Your task to perform on an android device: find snoozed emails in the gmail app Image 0: 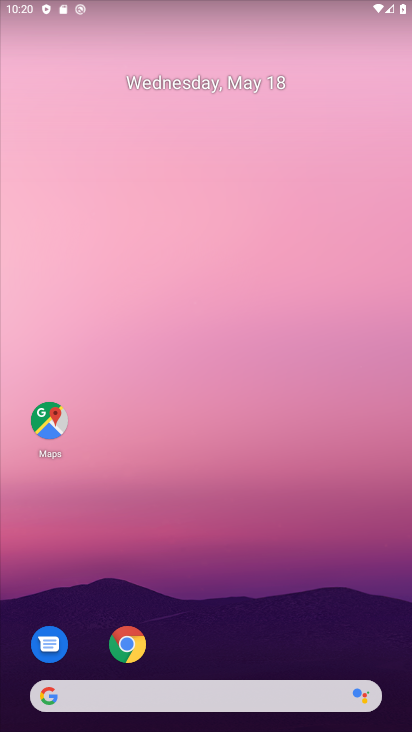
Step 0: drag from (390, 620) to (197, 36)
Your task to perform on an android device: find snoozed emails in the gmail app Image 1: 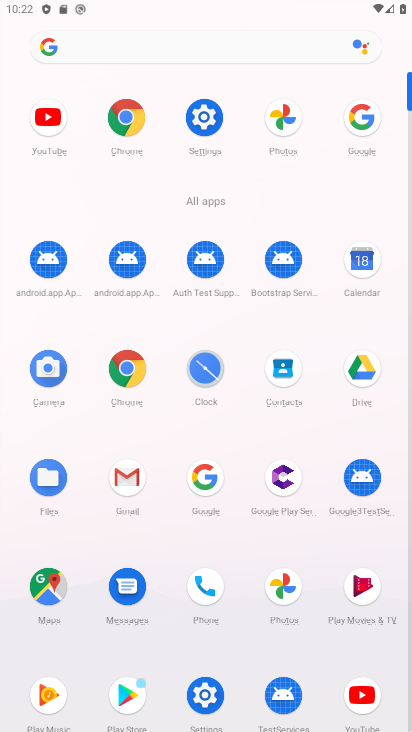
Step 1: click (113, 484)
Your task to perform on an android device: find snoozed emails in the gmail app Image 2: 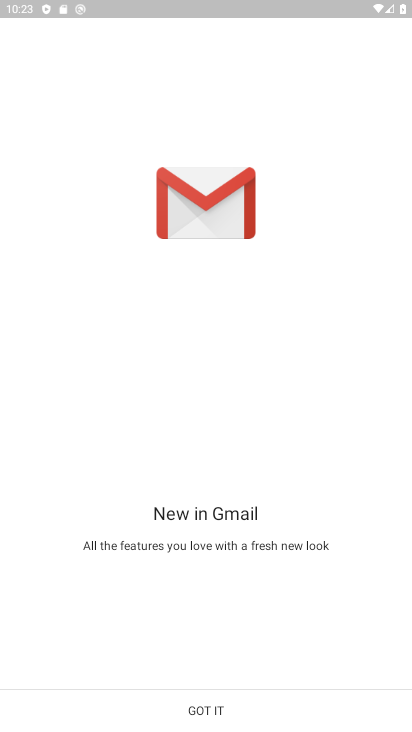
Step 2: click (224, 707)
Your task to perform on an android device: find snoozed emails in the gmail app Image 3: 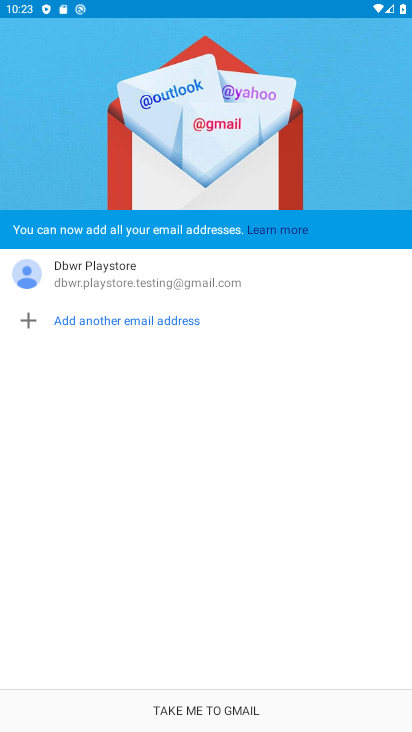
Step 3: click (194, 700)
Your task to perform on an android device: find snoozed emails in the gmail app Image 4: 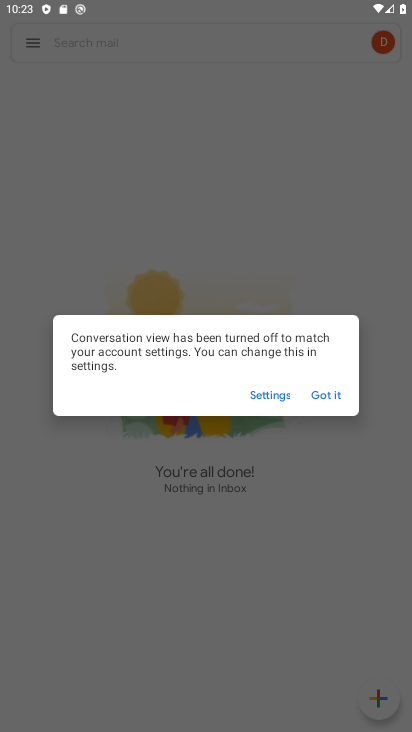
Step 4: click (349, 396)
Your task to perform on an android device: find snoozed emails in the gmail app Image 5: 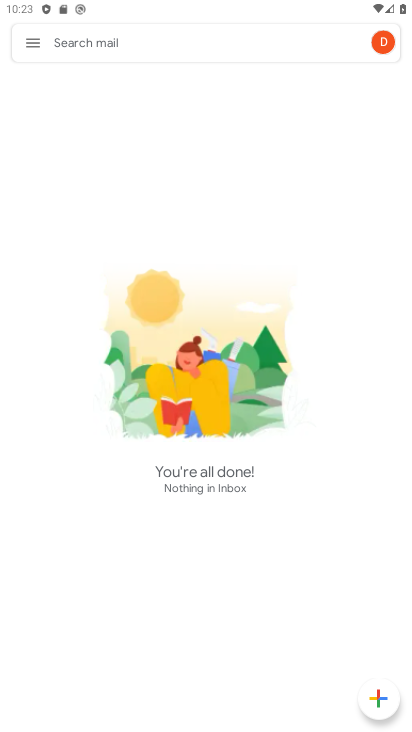
Step 5: click (44, 39)
Your task to perform on an android device: find snoozed emails in the gmail app Image 6: 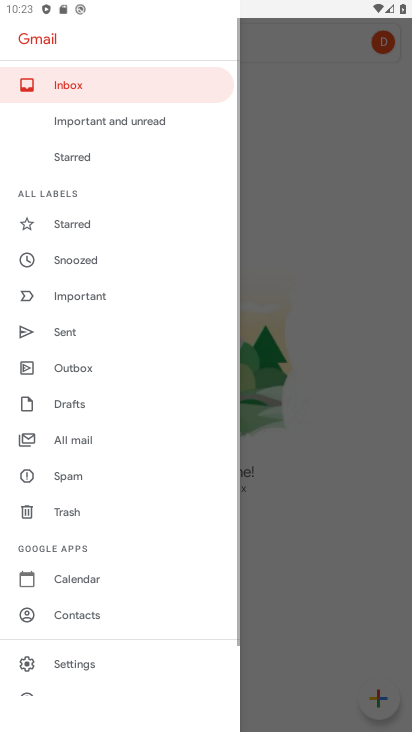
Step 6: click (87, 259)
Your task to perform on an android device: find snoozed emails in the gmail app Image 7: 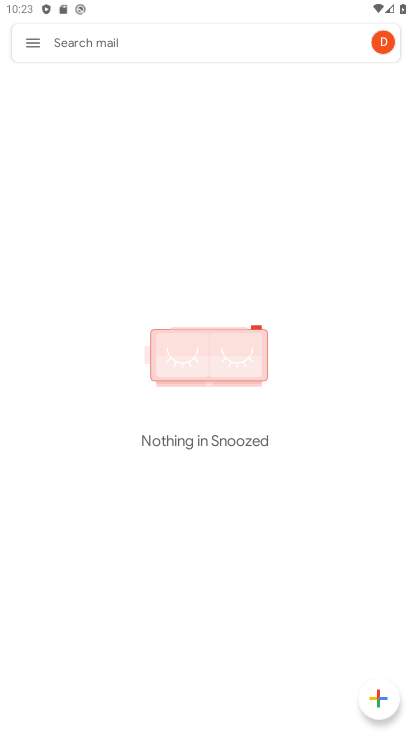
Step 7: task complete